Your task to perform on an android device: Open location settings Image 0: 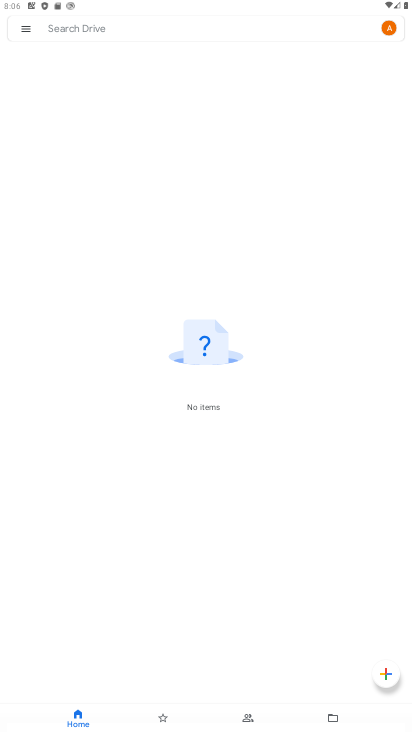
Step 0: press home button
Your task to perform on an android device: Open location settings Image 1: 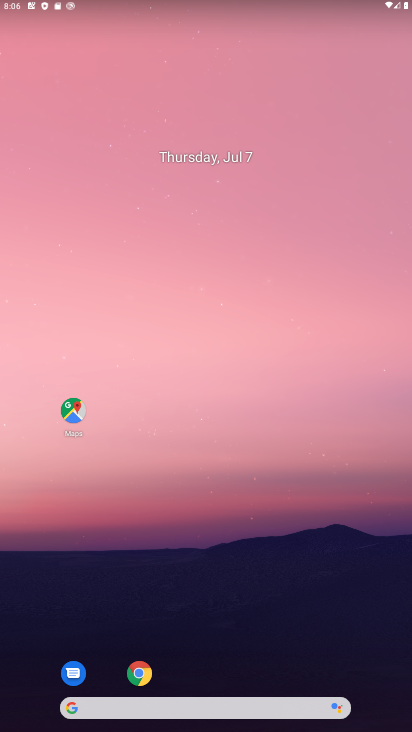
Step 1: drag from (243, 666) to (346, 11)
Your task to perform on an android device: Open location settings Image 2: 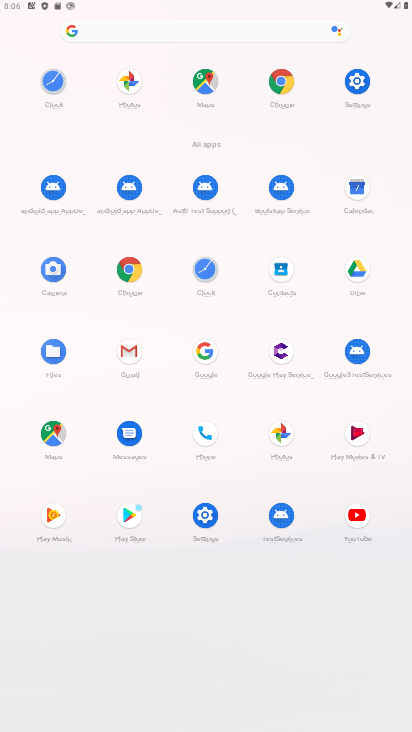
Step 2: click (348, 83)
Your task to perform on an android device: Open location settings Image 3: 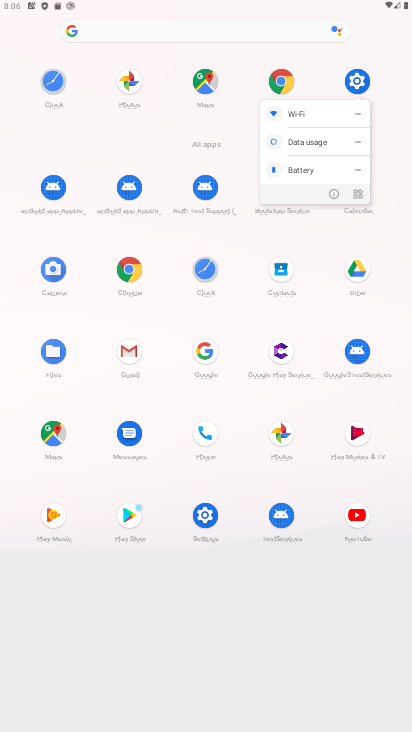
Step 3: click (359, 76)
Your task to perform on an android device: Open location settings Image 4: 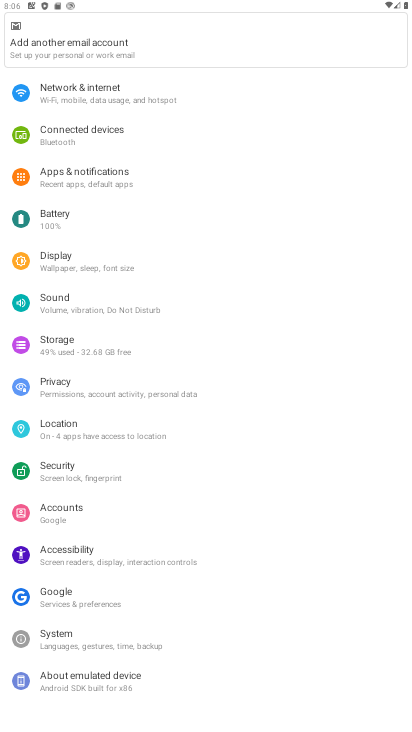
Step 4: click (56, 425)
Your task to perform on an android device: Open location settings Image 5: 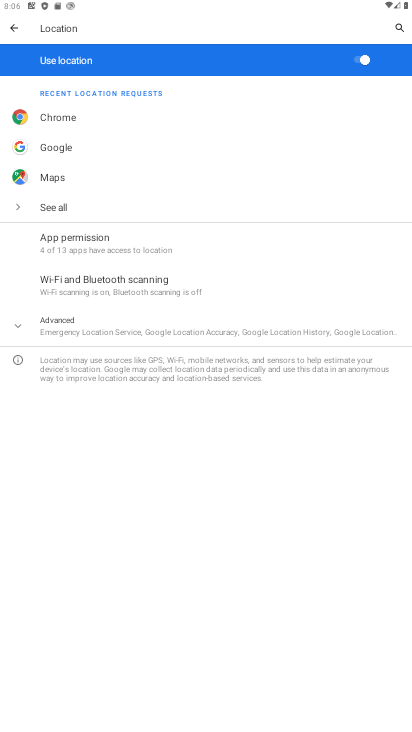
Step 5: task complete